Your task to perform on an android device: install app "Spotify" Image 0: 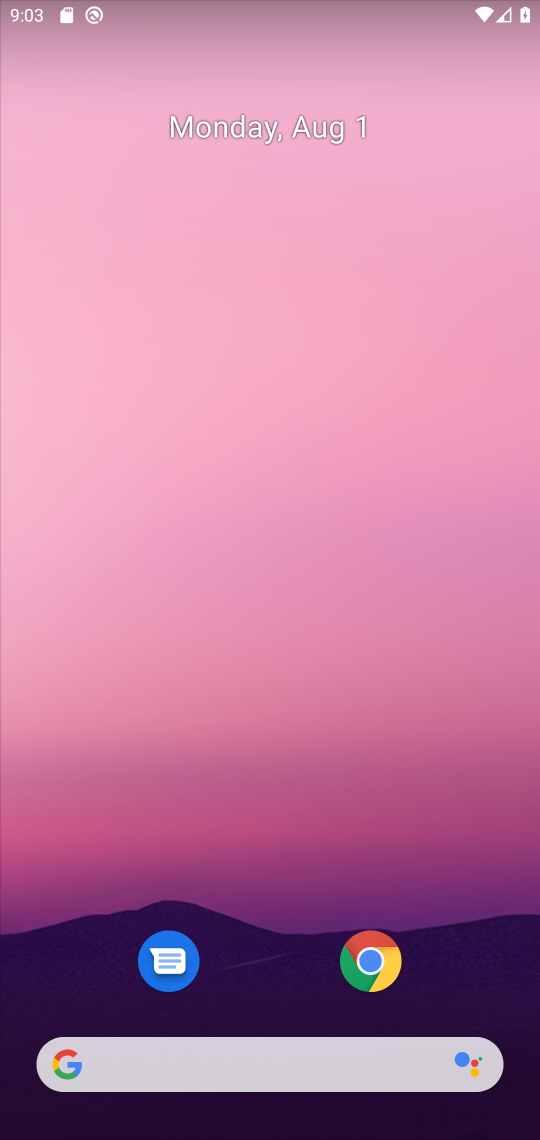
Step 0: drag from (411, 715) to (306, 135)
Your task to perform on an android device: install app "Spotify" Image 1: 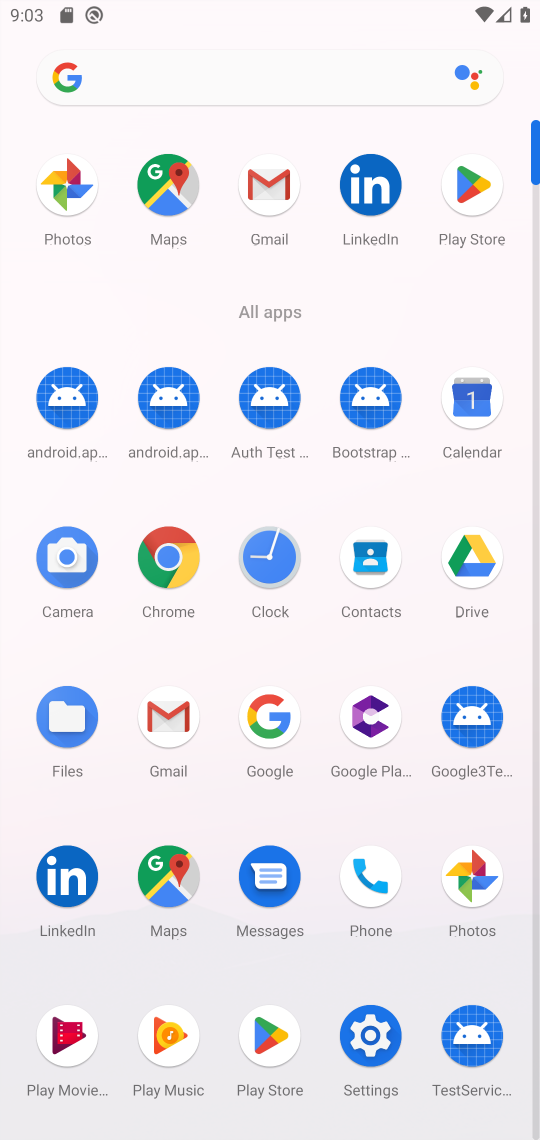
Step 1: click (497, 190)
Your task to perform on an android device: install app "Spotify" Image 2: 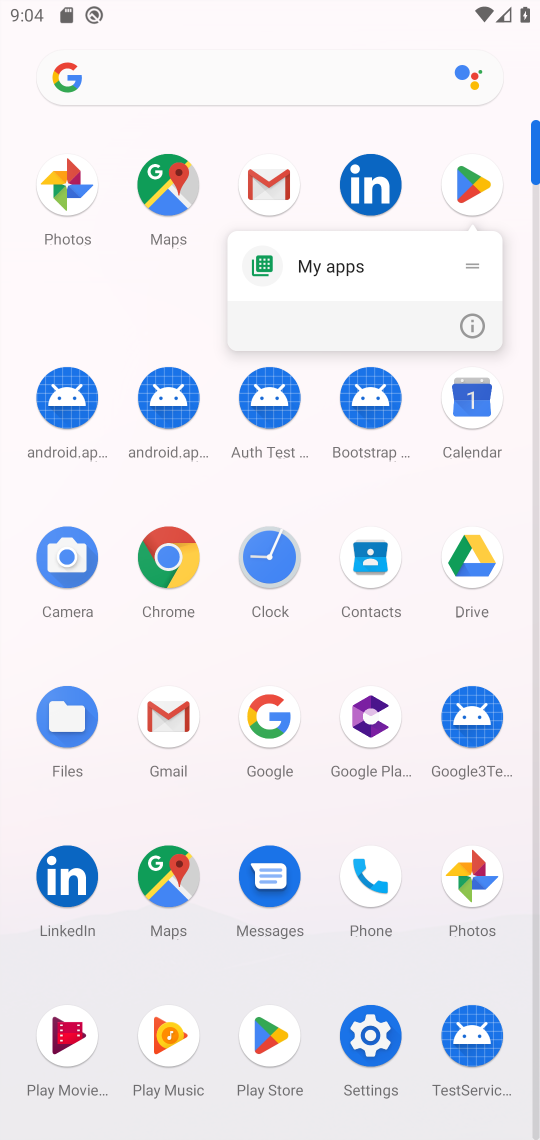
Step 2: click (476, 179)
Your task to perform on an android device: install app "Spotify" Image 3: 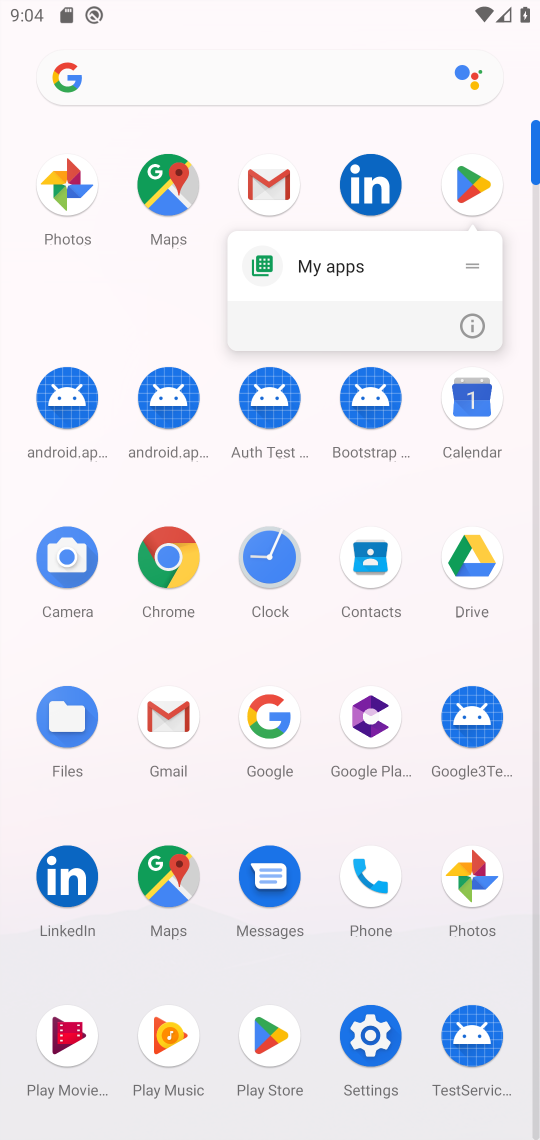
Step 3: click (474, 179)
Your task to perform on an android device: install app "Spotify" Image 4: 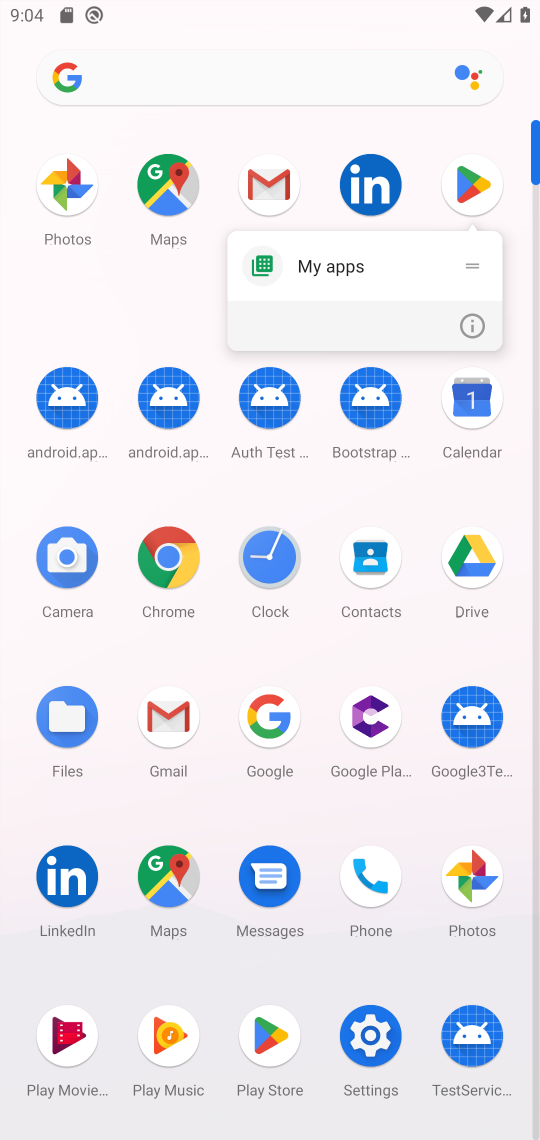
Step 4: click (474, 178)
Your task to perform on an android device: install app "Spotify" Image 5: 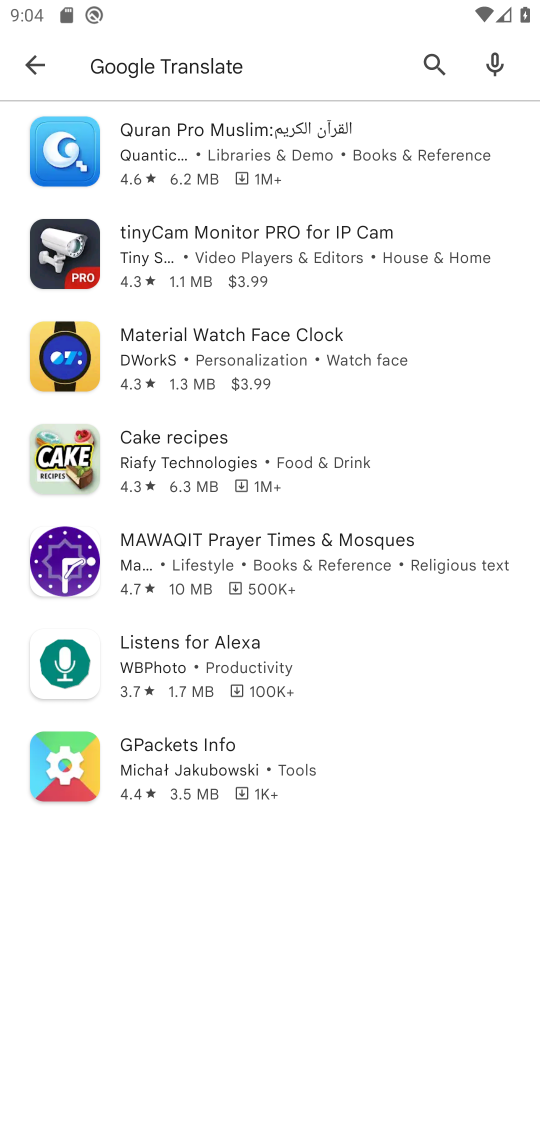
Step 5: click (25, 56)
Your task to perform on an android device: install app "Spotify" Image 6: 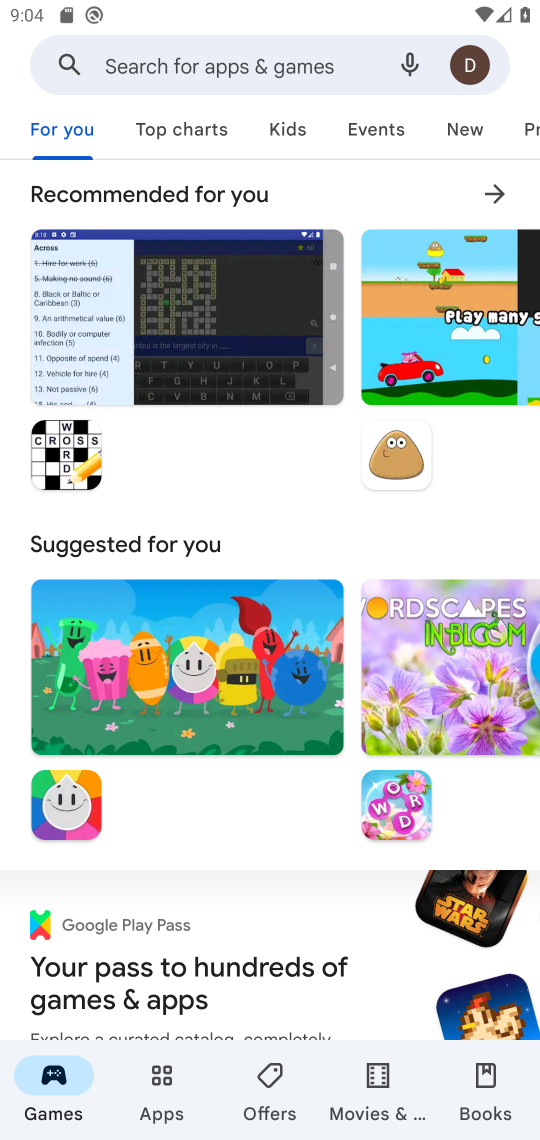
Step 6: click (228, 62)
Your task to perform on an android device: install app "Spotify" Image 7: 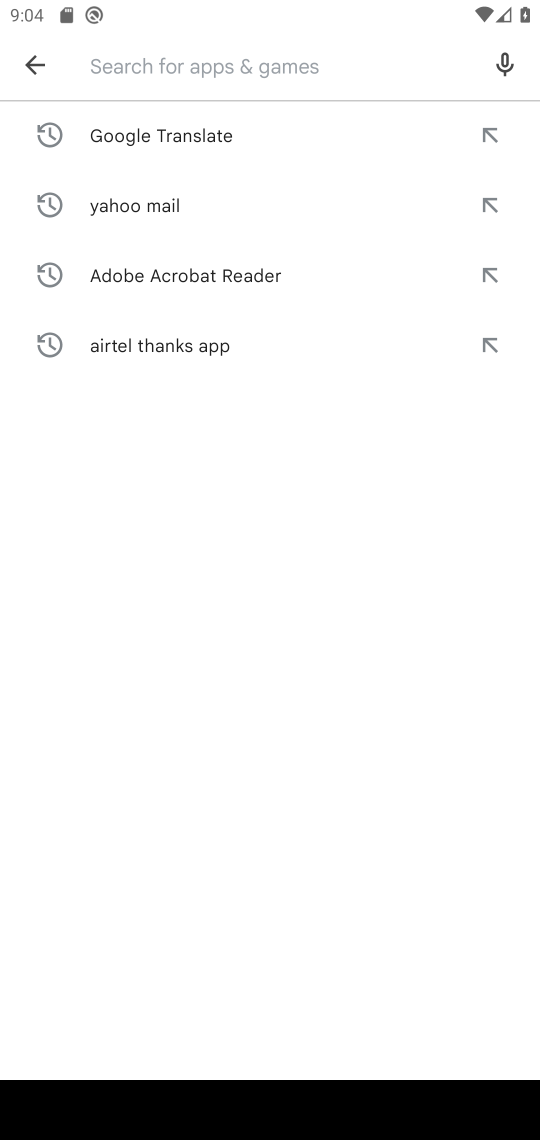
Step 7: type "Spotify"
Your task to perform on an android device: install app "Spotify" Image 8: 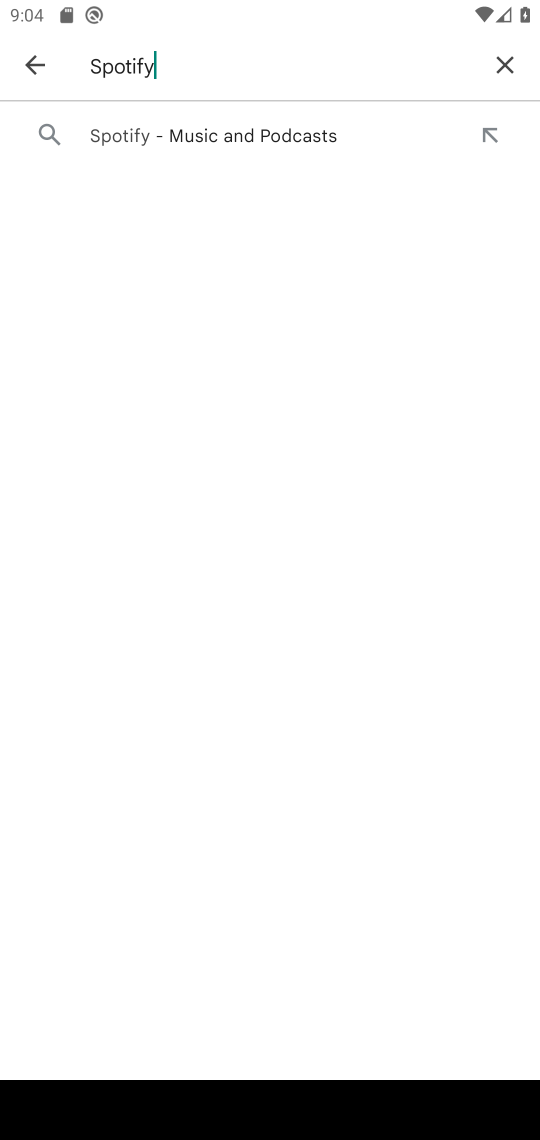
Step 8: click (151, 129)
Your task to perform on an android device: install app "Spotify" Image 9: 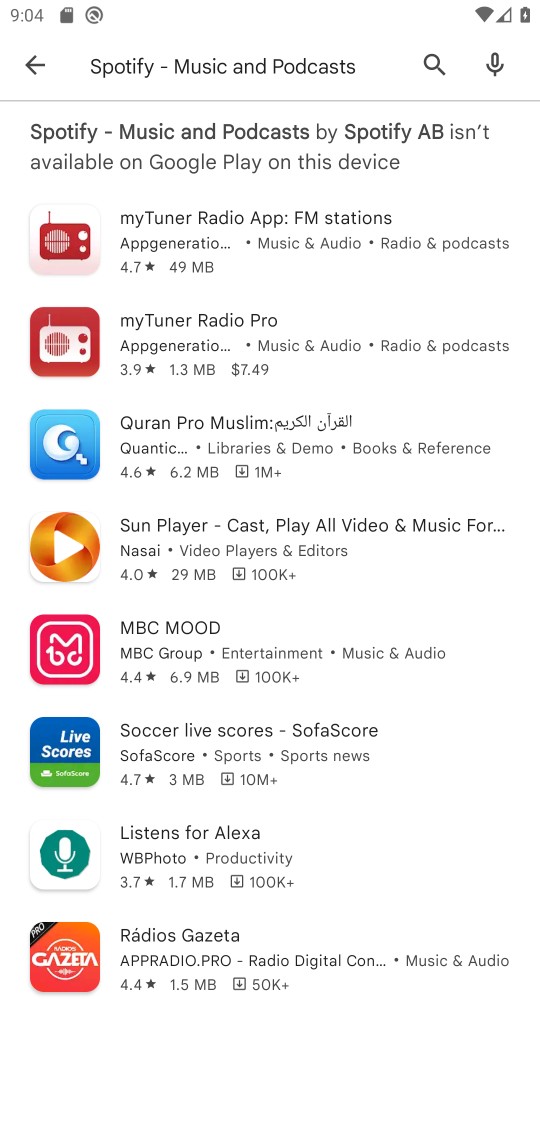
Step 9: task complete